Your task to perform on an android device: check storage Image 0: 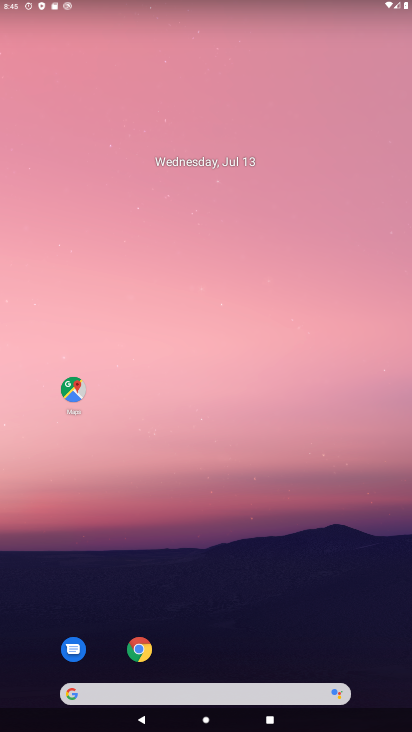
Step 0: drag from (208, 523) to (268, 2)
Your task to perform on an android device: check storage Image 1: 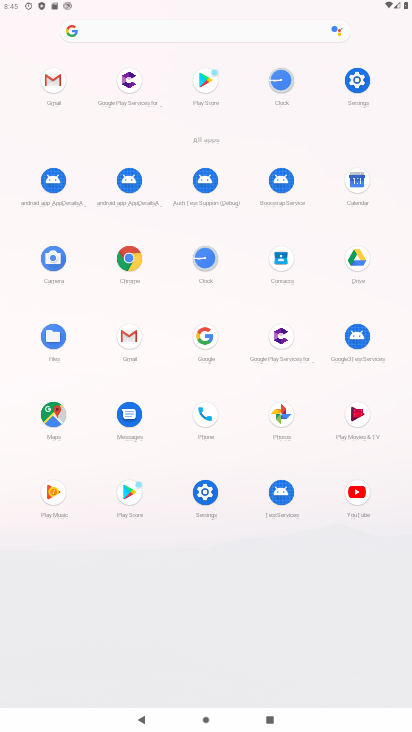
Step 1: click (353, 77)
Your task to perform on an android device: check storage Image 2: 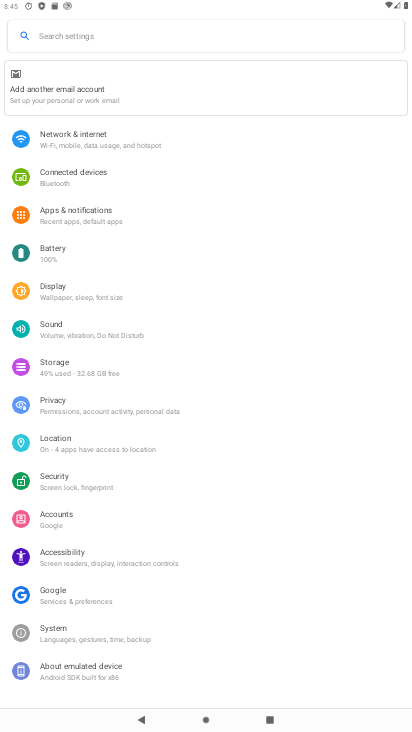
Step 2: click (74, 371)
Your task to perform on an android device: check storage Image 3: 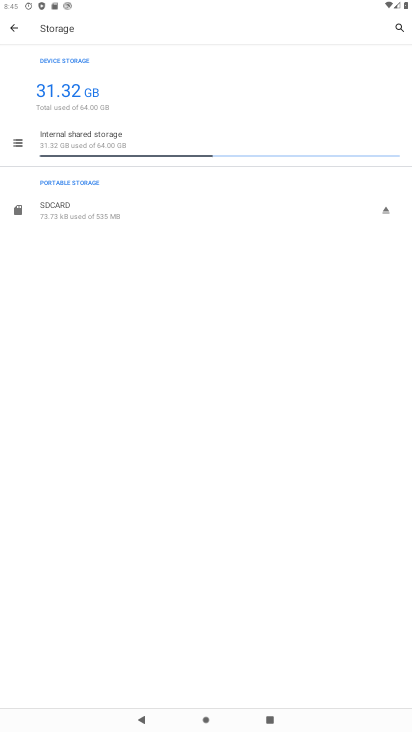
Step 3: task complete